Your task to perform on an android device: Open CNN.com Image 0: 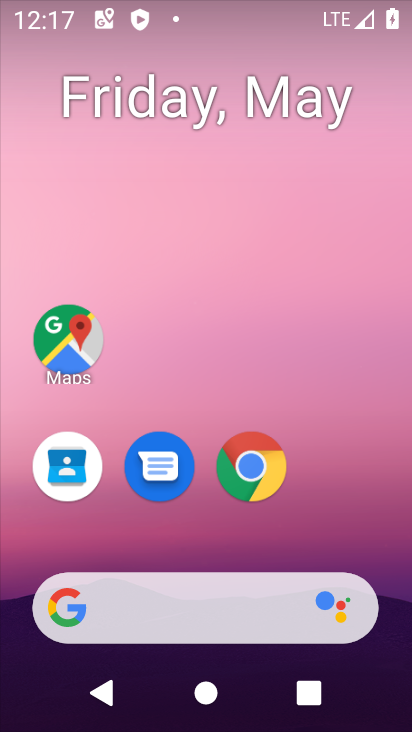
Step 0: click (249, 485)
Your task to perform on an android device: Open CNN.com Image 1: 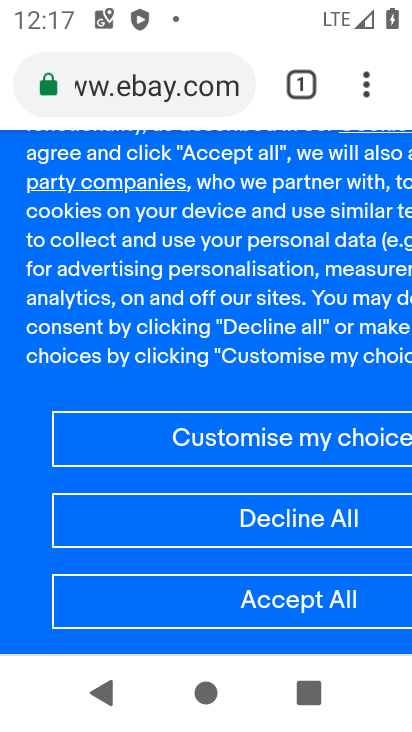
Step 1: click (135, 93)
Your task to perform on an android device: Open CNN.com Image 2: 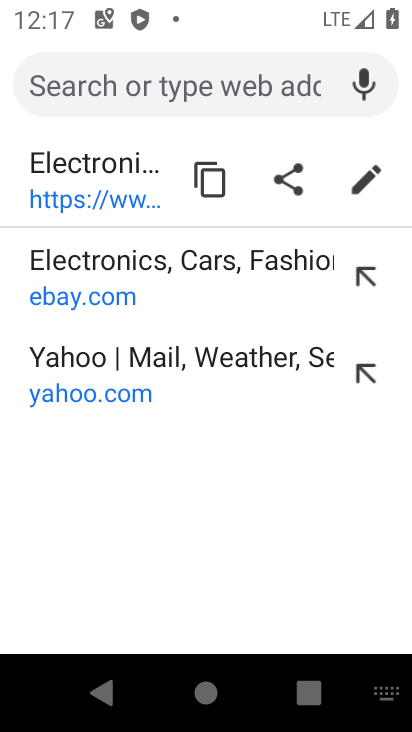
Step 2: type "www.cnn.com"
Your task to perform on an android device: Open CNN.com Image 3: 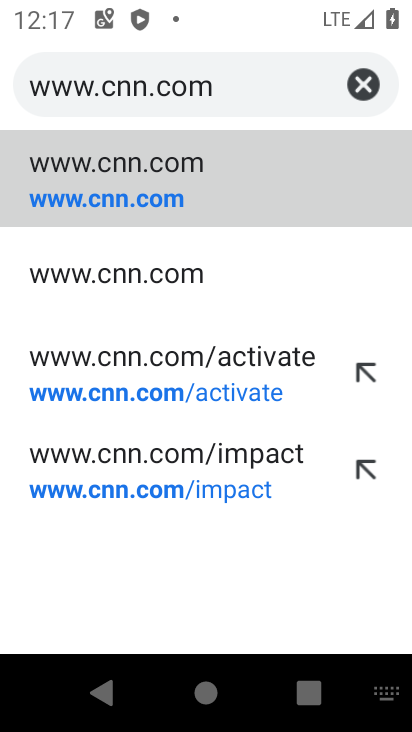
Step 3: click (109, 175)
Your task to perform on an android device: Open CNN.com Image 4: 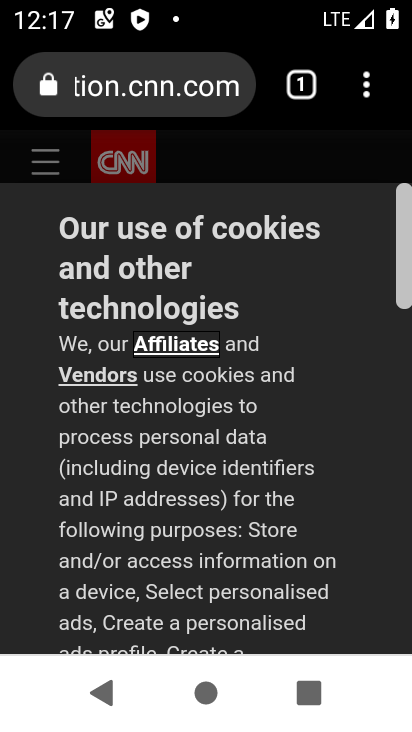
Step 4: task complete